Your task to perform on an android device: change the clock style Image 0: 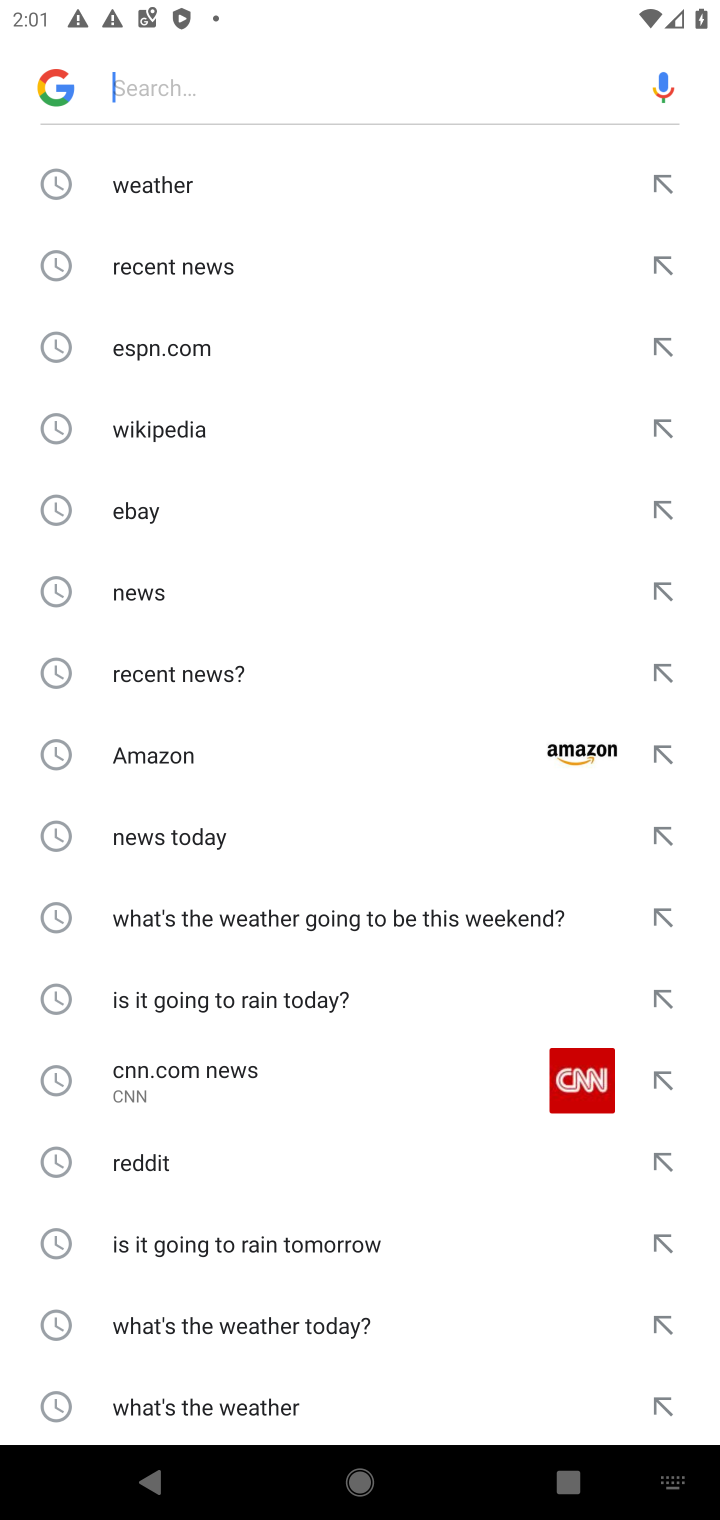
Step 0: press home button
Your task to perform on an android device: change the clock style Image 1: 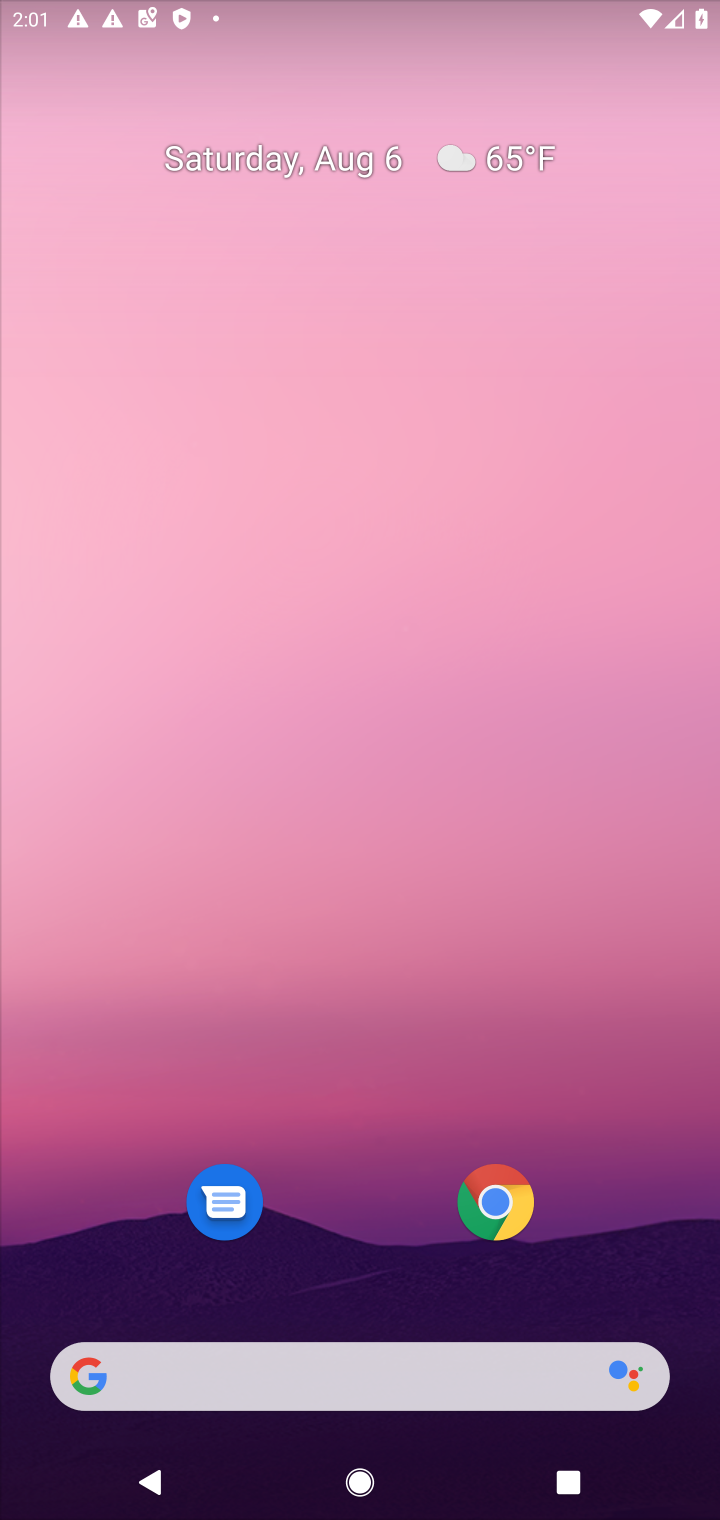
Step 1: drag from (403, 1365) to (413, 404)
Your task to perform on an android device: change the clock style Image 2: 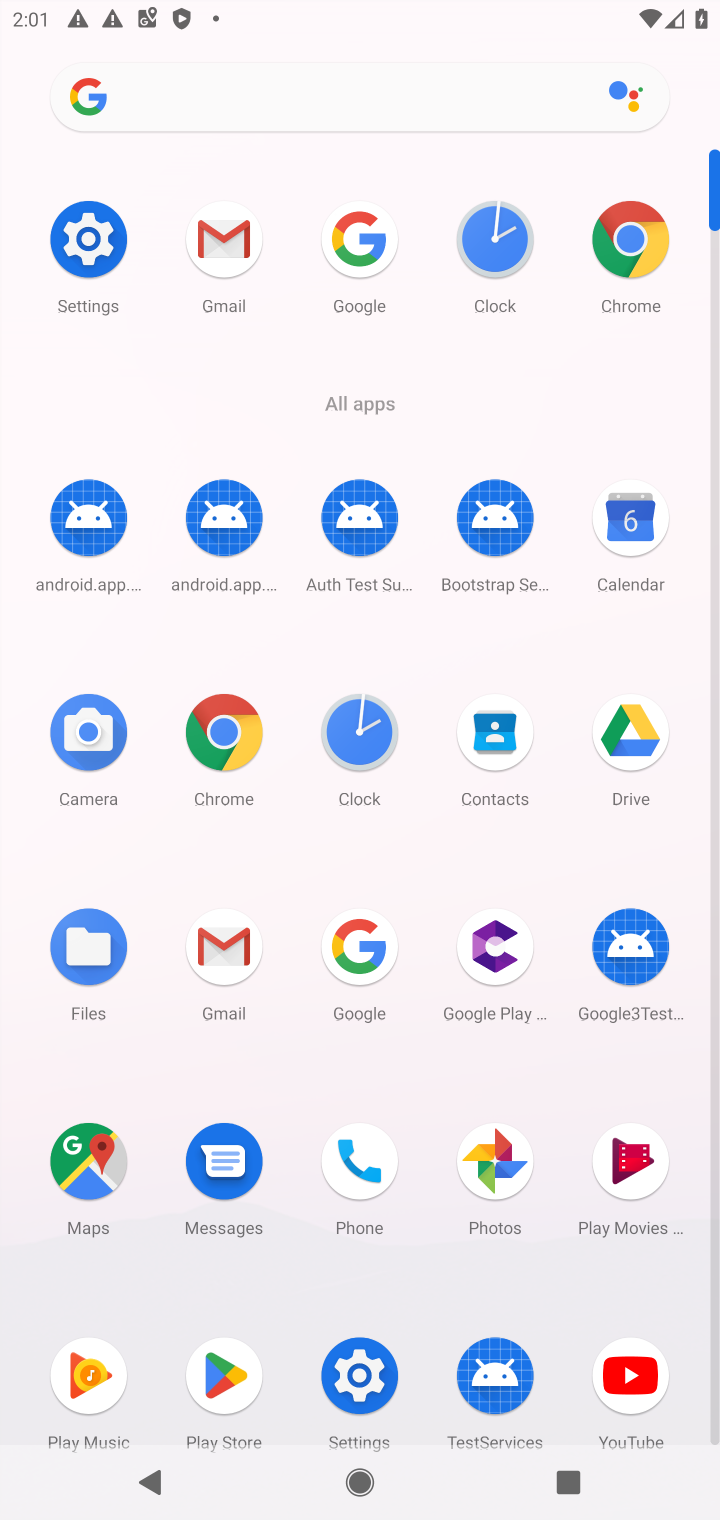
Step 2: click (367, 736)
Your task to perform on an android device: change the clock style Image 3: 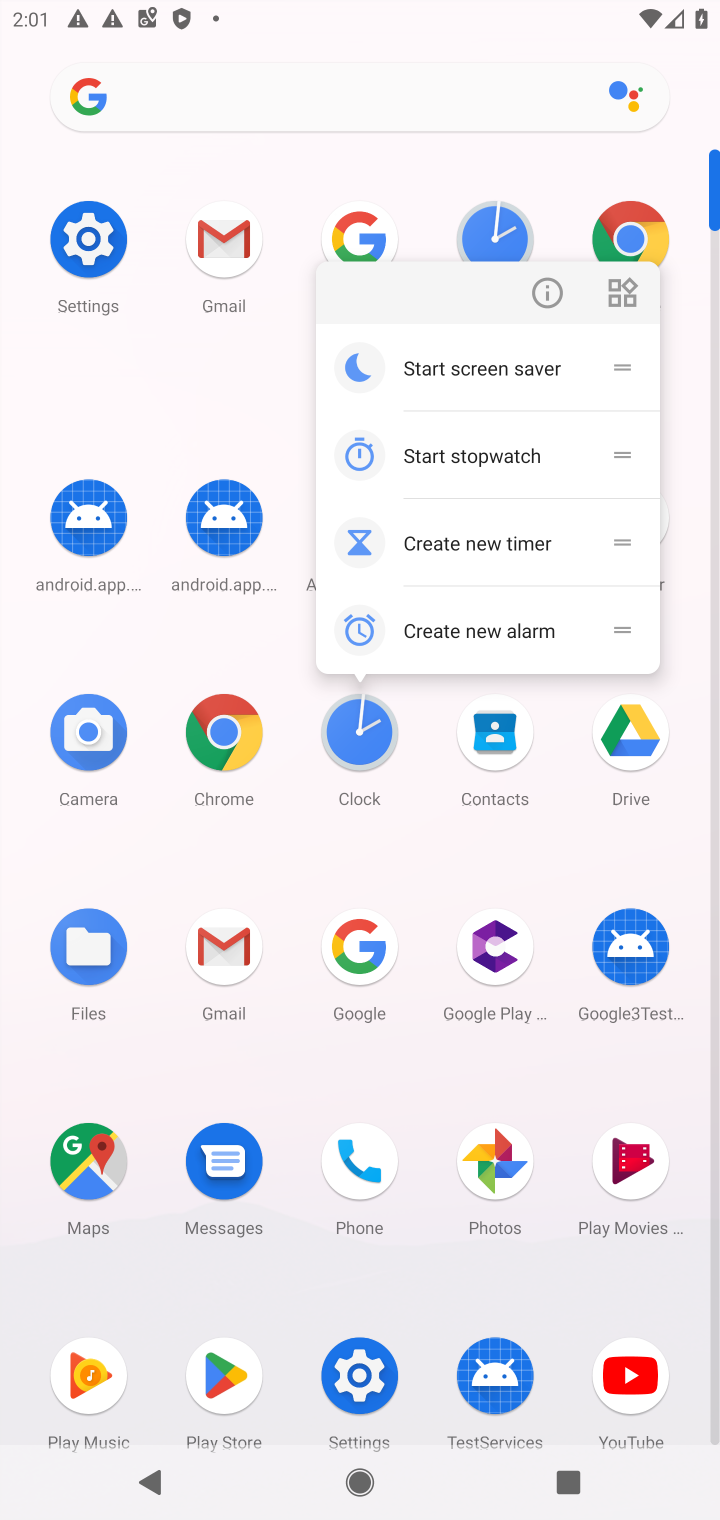
Step 3: click (365, 736)
Your task to perform on an android device: change the clock style Image 4: 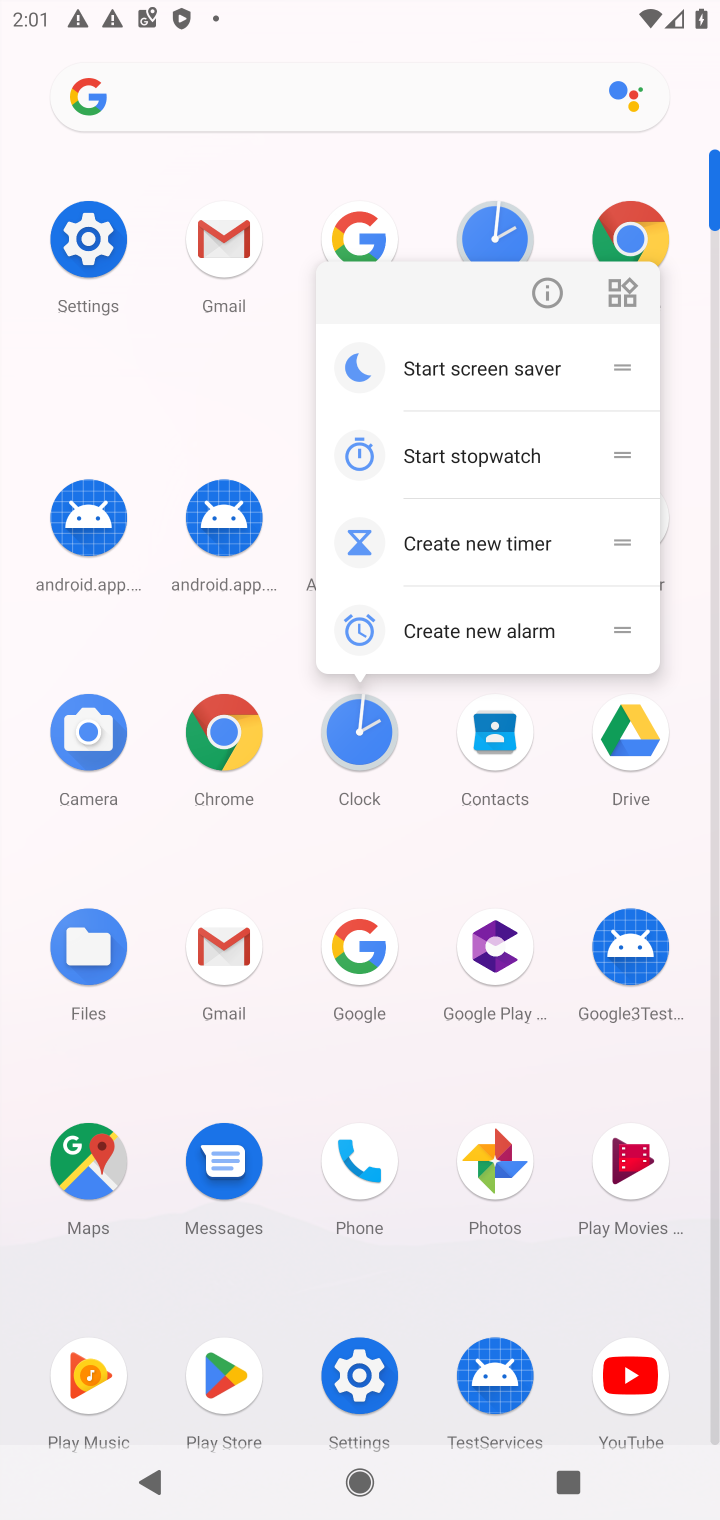
Step 4: click (350, 749)
Your task to perform on an android device: change the clock style Image 5: 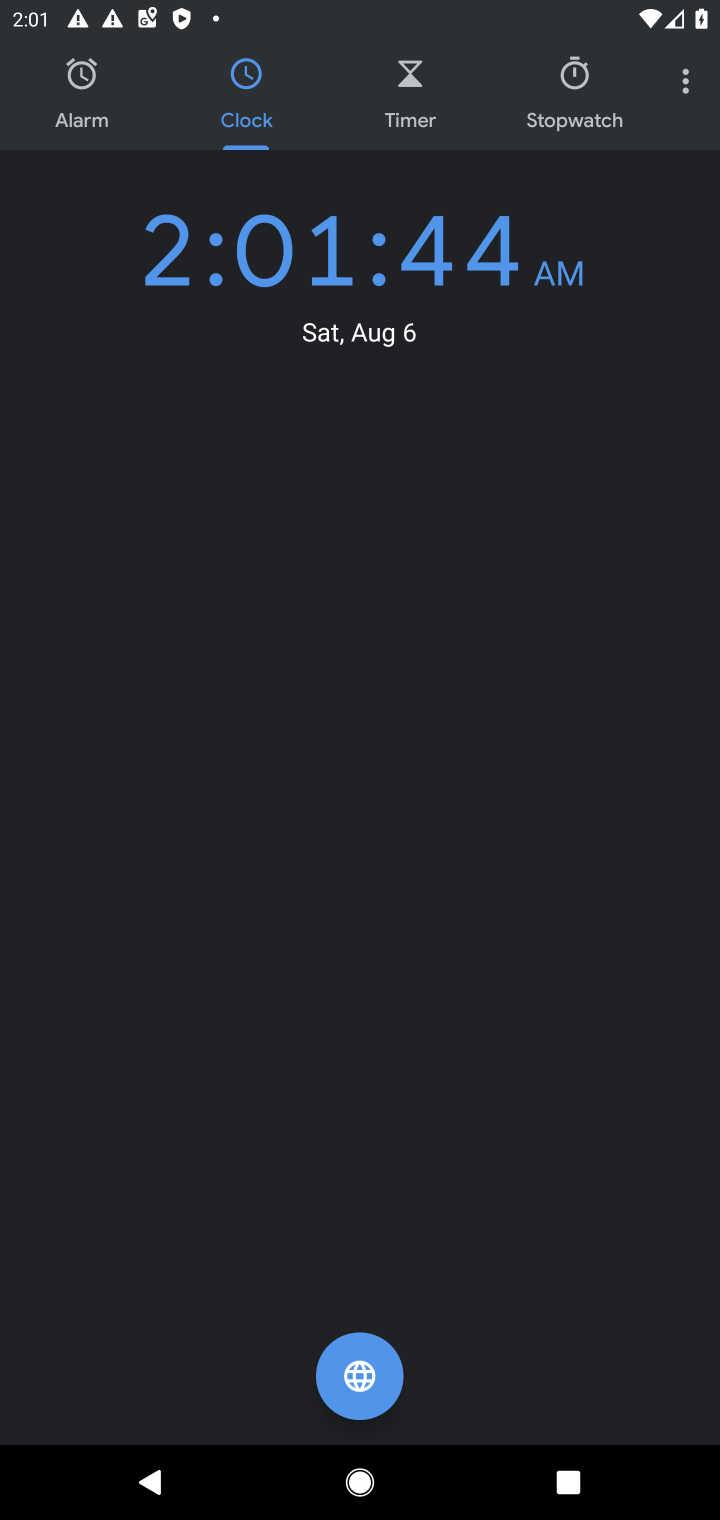
Step 5: click (683, 90)
Your task to perform on an android device: change the clock style Image 6: 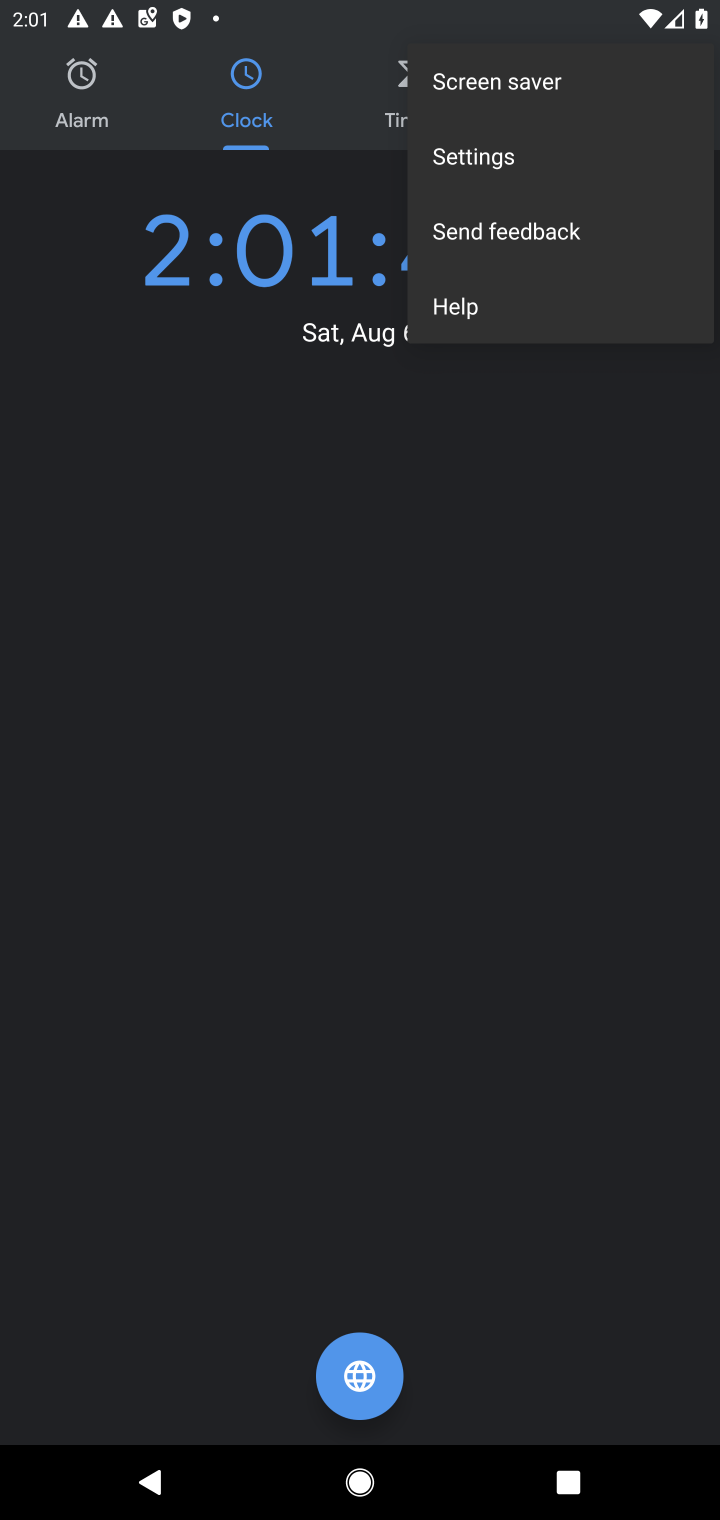
Step 6: click (487, 139)
Your task to perform on an android device: change the clock style Image 7: 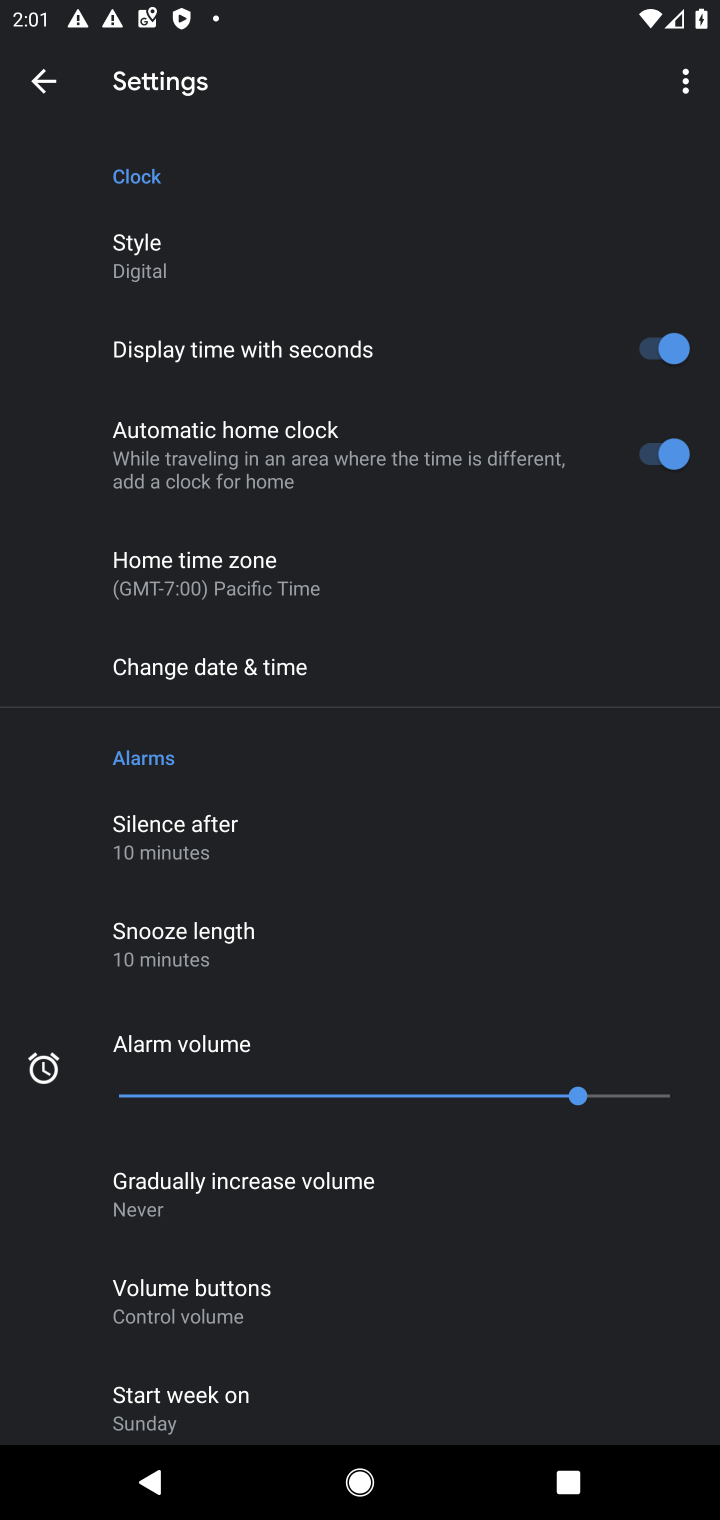
Step 7: click (173, 256)
Your task to perform on an android device: change the clock style Image 8: 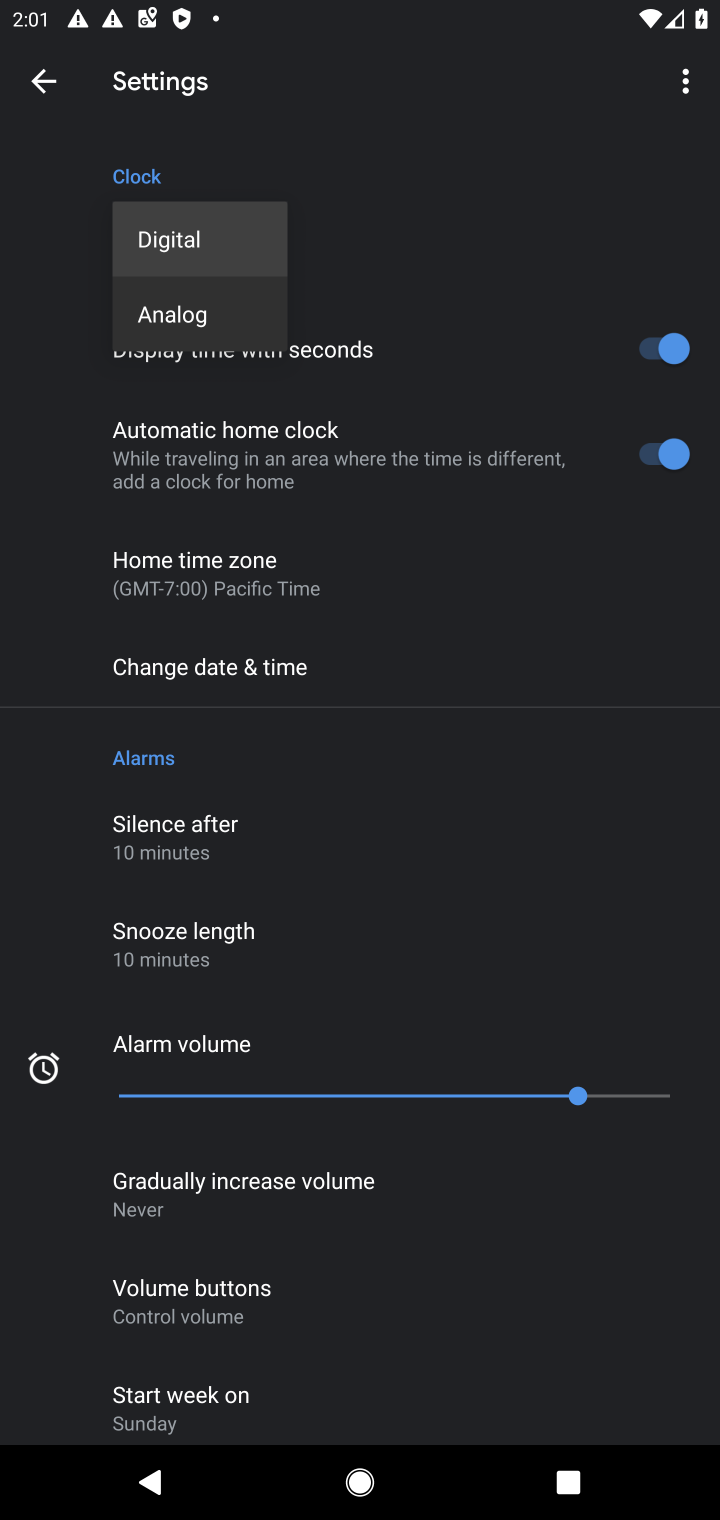
Step 8: click (173, 310)
Your task to perform on an android device: change the clock style Image 9: 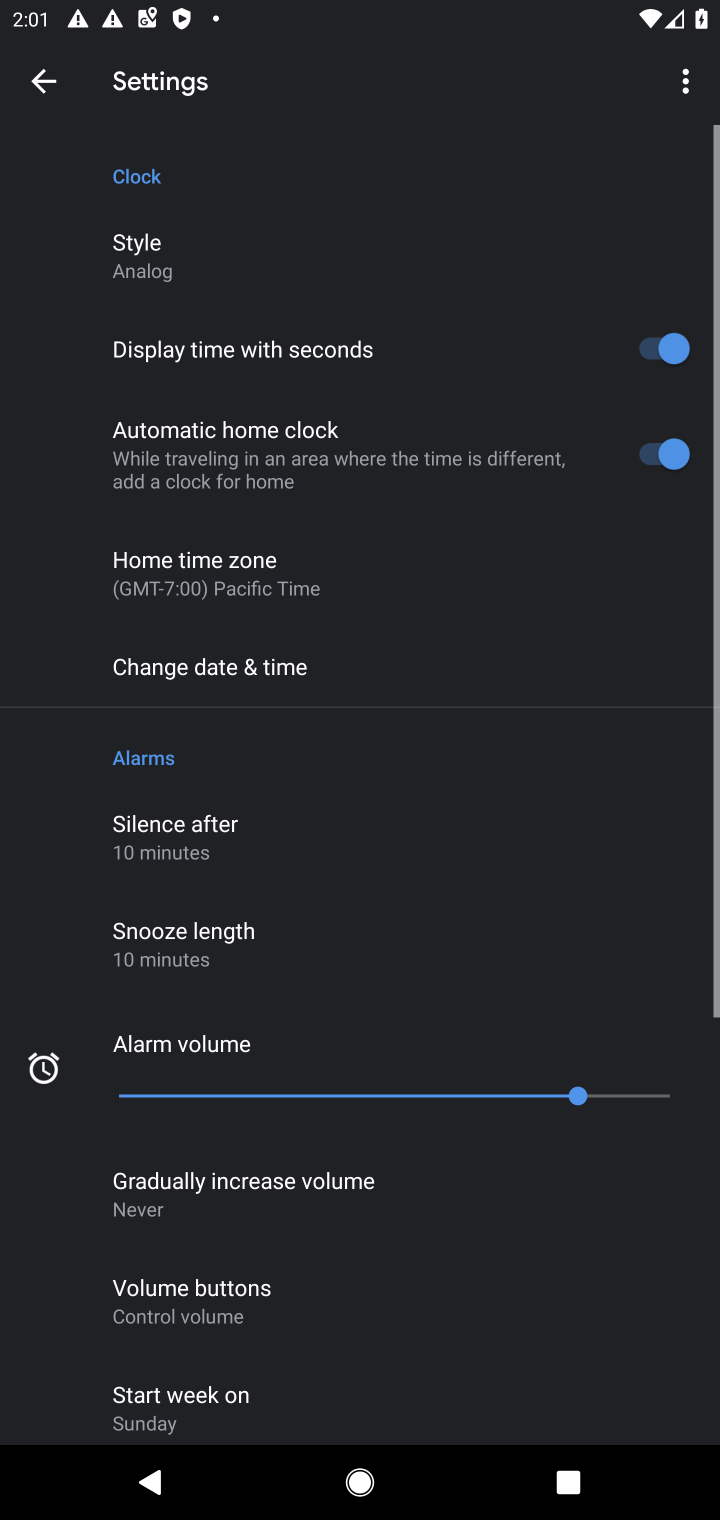
Step 9: task complete